Your task to perform on an android device: Open Android settings Image 0: 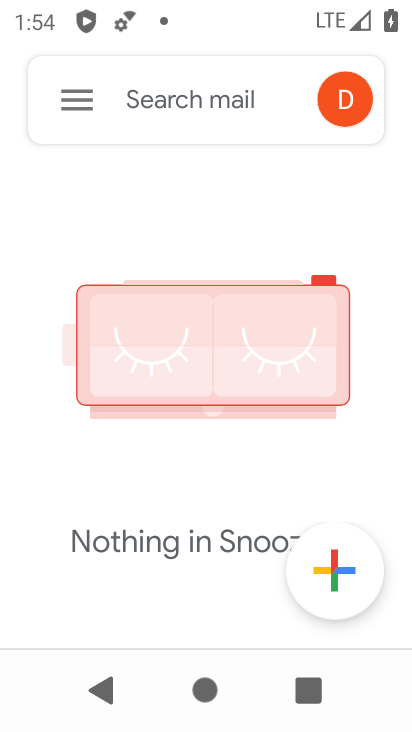
Step 0: press home button
Your task to perform on an android device: Open Android settings Image 1: 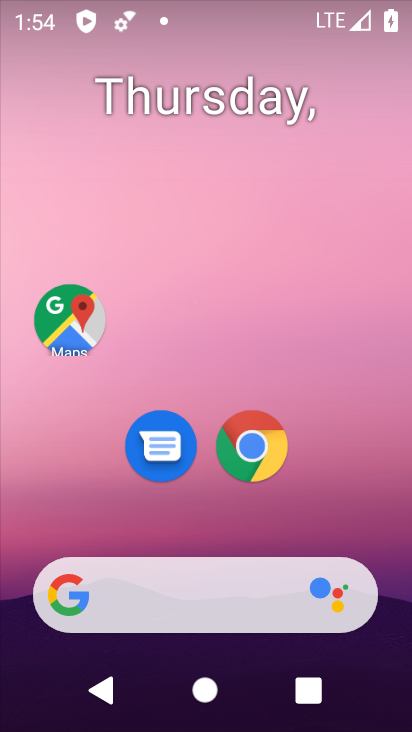
Step 1: drag from (311, 497) to (282, 191)
Your task to perform on an android device: Open Android settings Image 2: 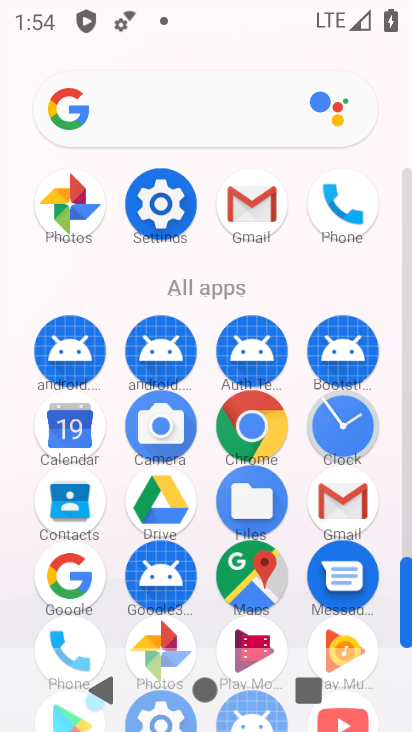
Step 2: click (139, 201)
Your task to perform on an android device: Open Android settings Image 3: 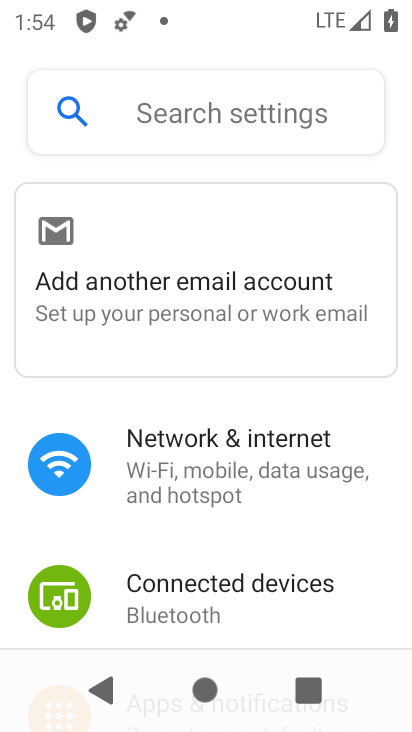
Step 3: task complete